Your task to perform on an android device: Clear all items from cart on newegg.com. Image 0: 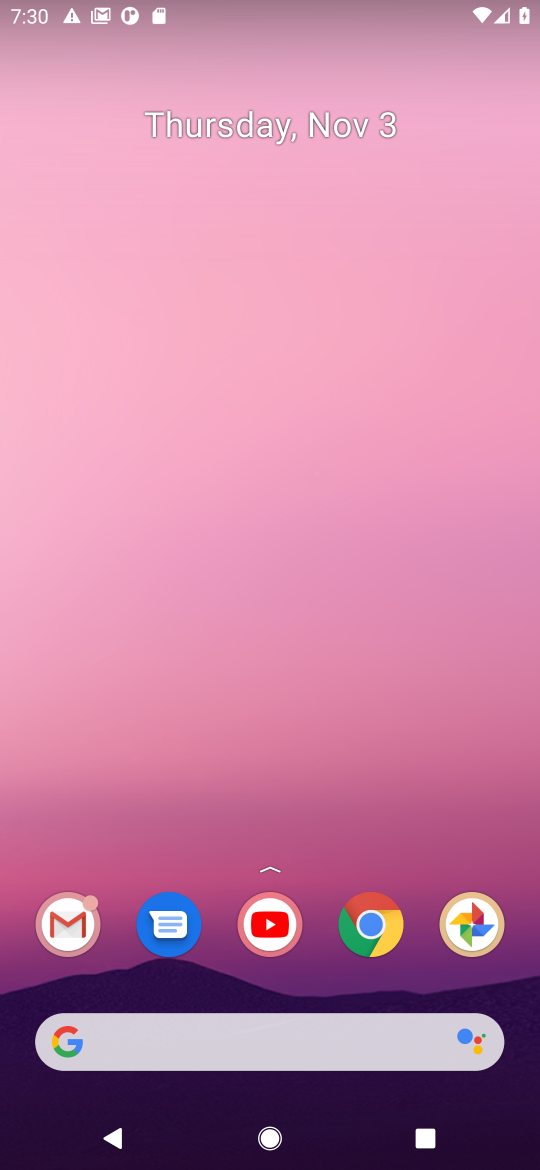
Step 0: click (300, 1027)
Your task to perform on an android device: Clear all items from cart on newegg.com. Image 1: 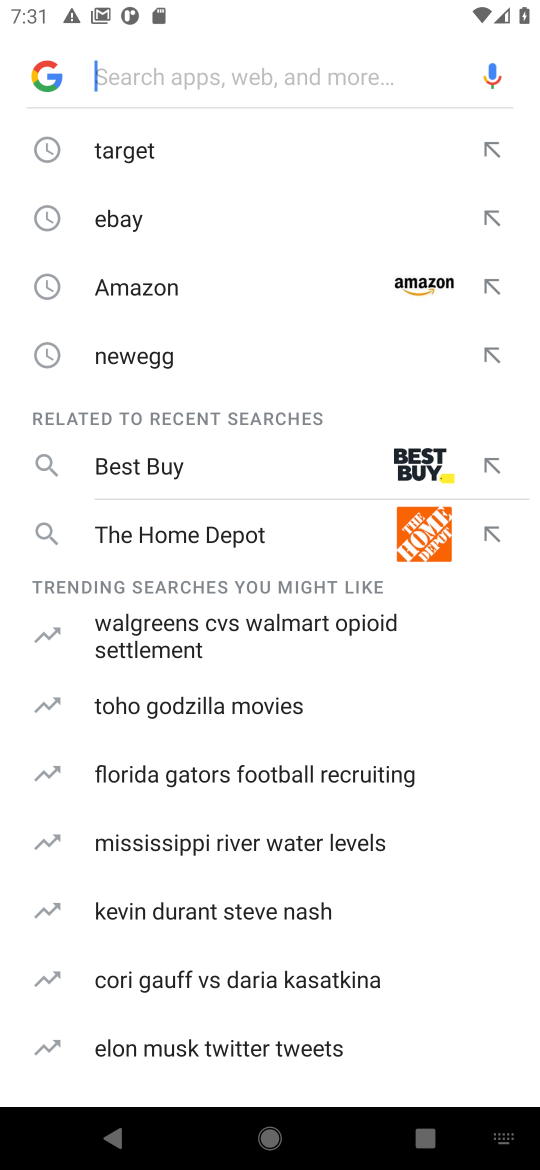
Step 1: click (126, 349)
Your task to perform on an android device: Clear all items from cart on newegg.com. Image 2: 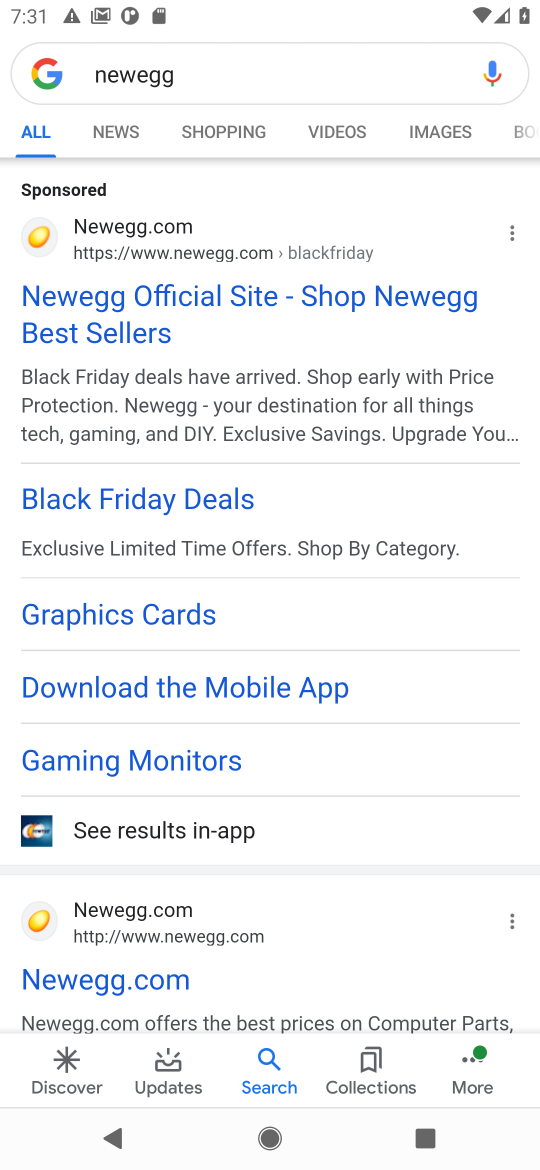
Step 2: click (122, 226)
Your task to perform on an android device: Clear all items from cart on newegg.com. Image 3: 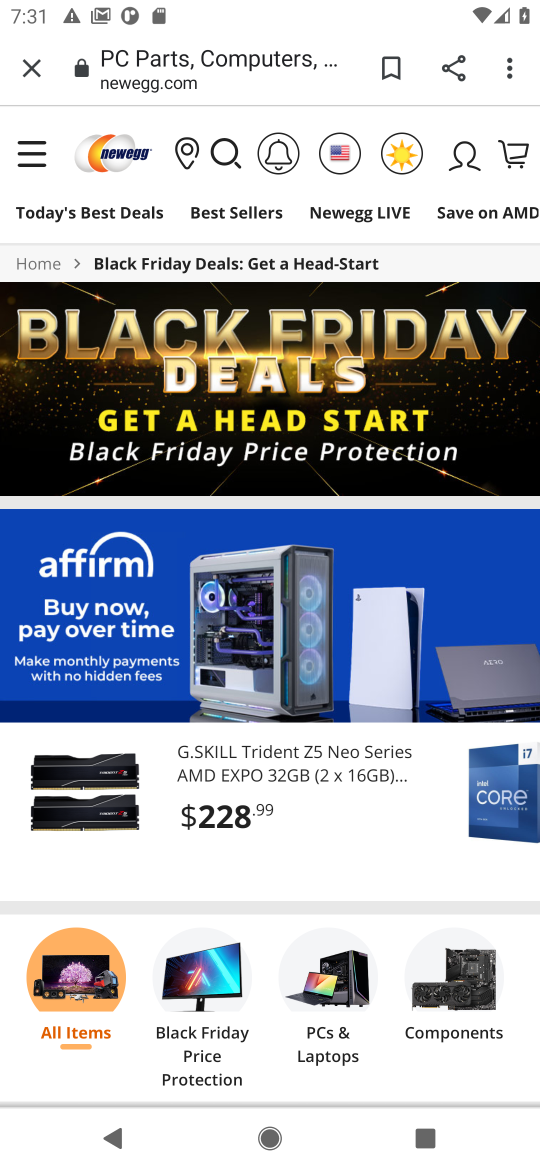
Step 3: click (507, 153)
Your task to perform on an android device: Clear all items from cart on newegg.com. Image 4: 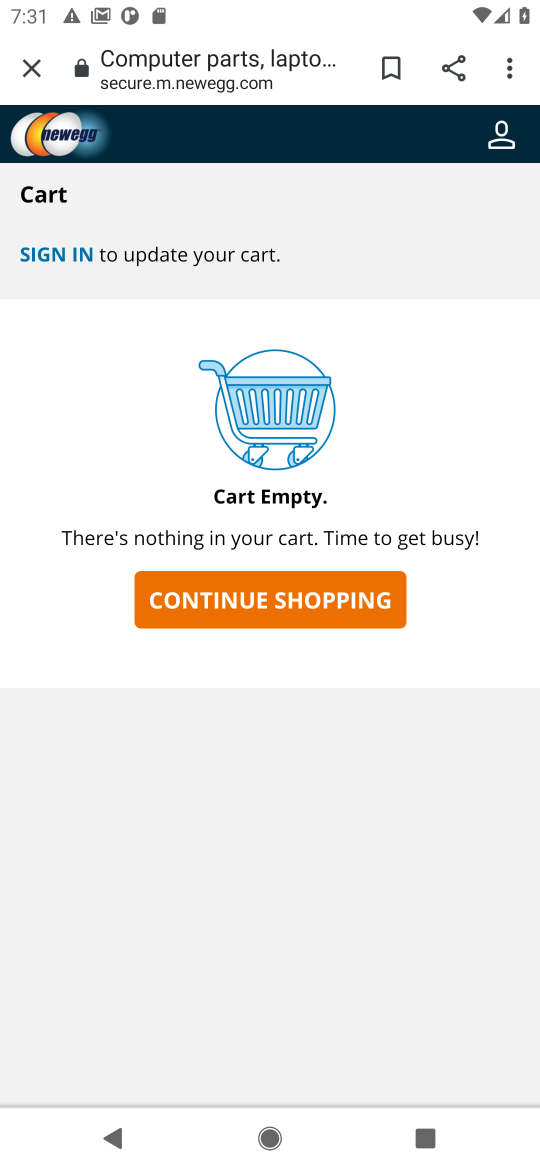
Step 4: task complete